Your task to perform on an android device: set the stopwatch Image 0: 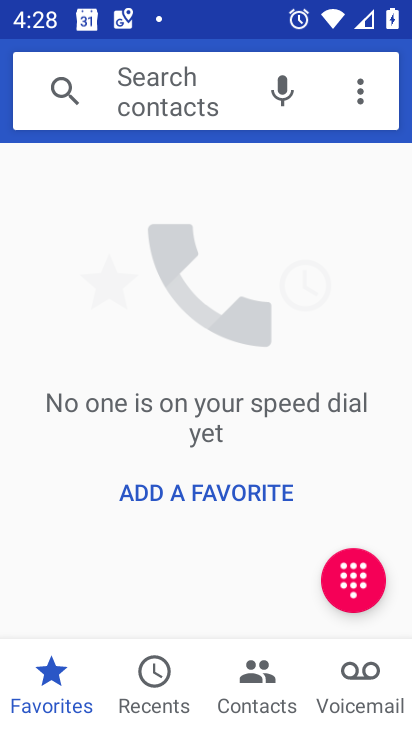
Step 0: press home button
Your task to perform on an android device: set the stopwatch Image 1: 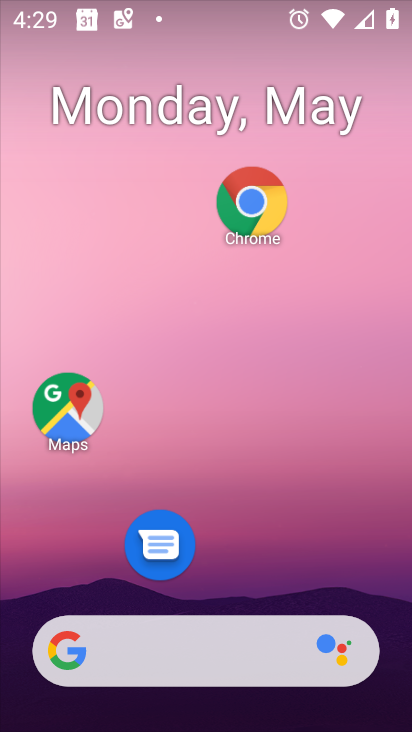
Step 1: drag from (239, 559) to (213, 175)
Your task to perform on an android device: set the stopwatch Image 2: 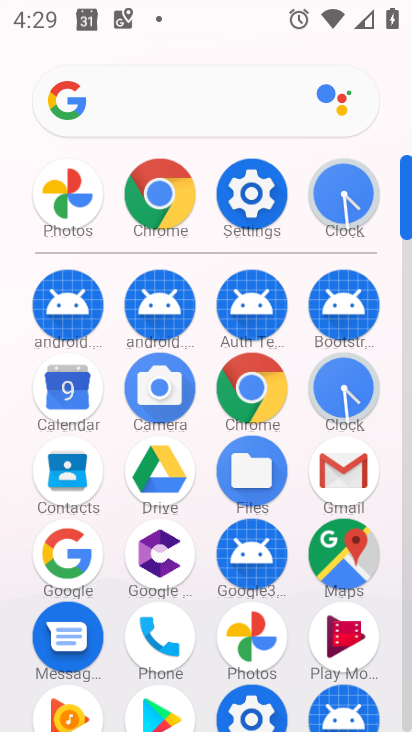
Step 2: click (347, 207)
Your task to perform on an android device: set the stopwatch Image 3: 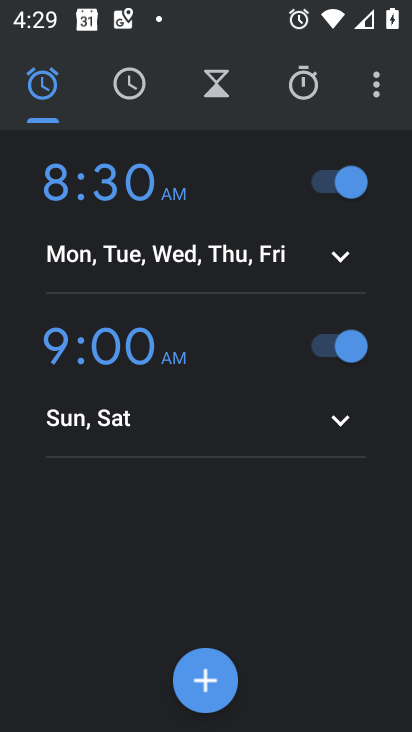
Step 3: click (300, 95)
Your task to perform on an android device: set the stopwatch Image 4: 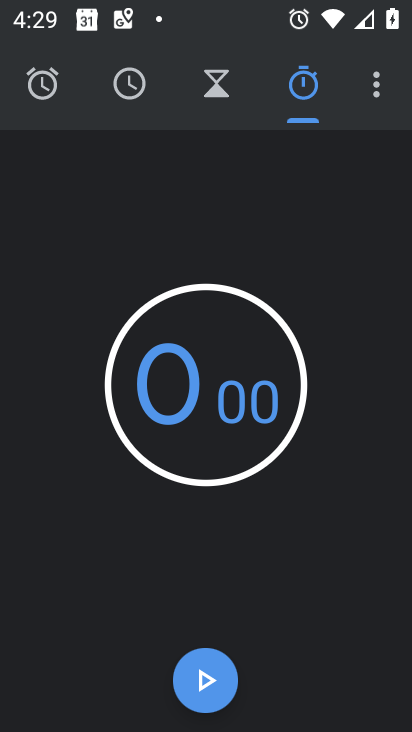
Step 4: click (213, 668)
Your task to perform on an android device: set the stopwatch Image 5: 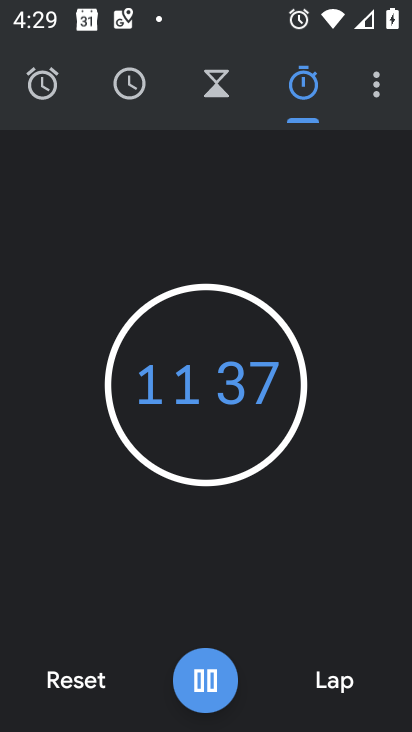
Step 5: task complete